Your task to perform on an android device: Open privacy settings Image 0: 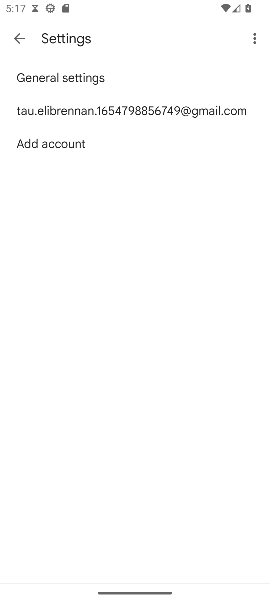
Step 0: press home button
Your task to perform on an android device: Open privacy settings Image 1: 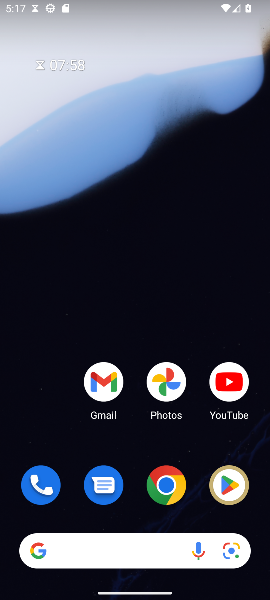
Step 1: drag from (138, 512) to (157, 156)
Your task to perform on an android device: Open privacy settings Image 2: 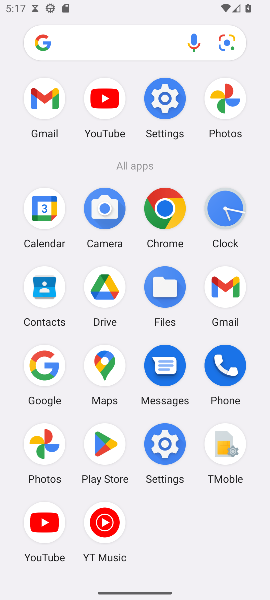
Step 2: click (159, 454)
Your task to perform on an android device: Open privacy settings Image 3: 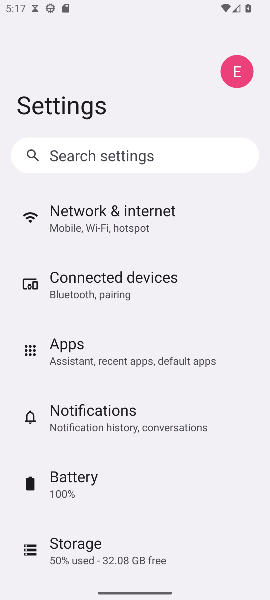
Step 3: drag from (98, 472) to (84, 302)
Your task to perform on an android device: Open privacy settings Image 4: 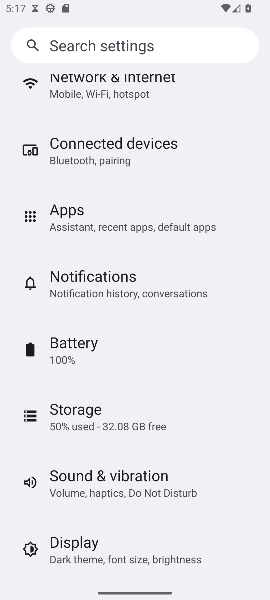
Step 4: drag from (76, 523) to (85, 260)
Your task to perform on an android device: Open privacy settings Image 5: 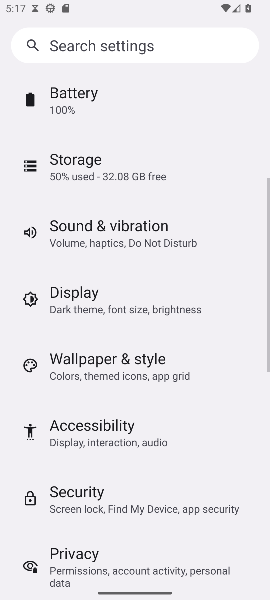
Step 5: drag from (83, 263) to (103, 188)
Your task to perform on an android device: Open privacy settings Image 6: 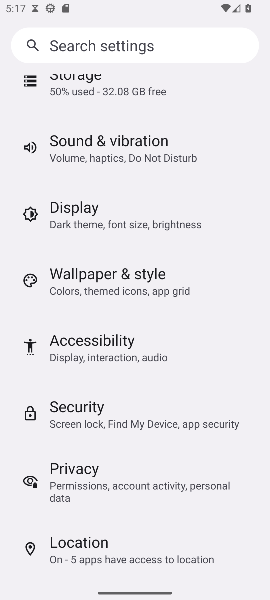
Step 6: click (81, 483)
Your task to perform on an android device: Open privacy settings Image 7: 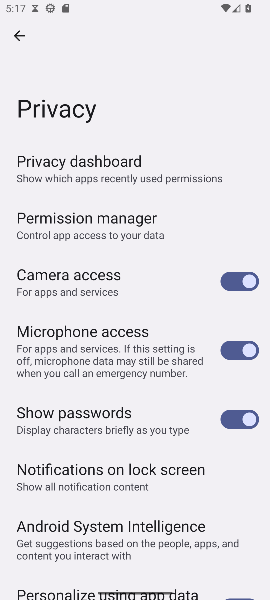
Step 7: task complete